Your task to perform on an android device: clear all cookies in the chrome app Image 0: 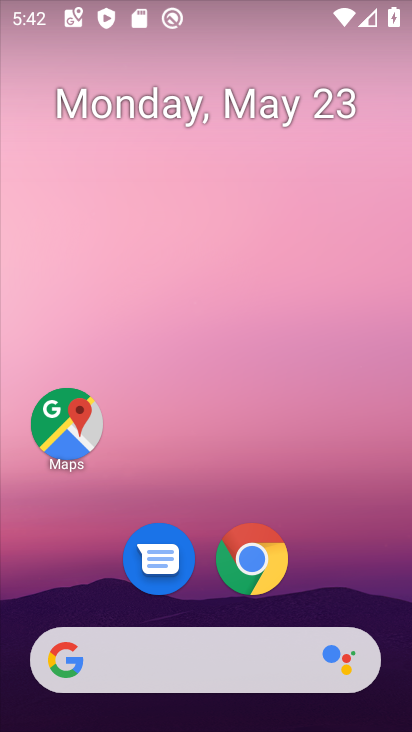
Step 0: drag from (287, 593) to (407, 458)
Your task to perform on an android device: clear all cookies in the chrome app Image 1: 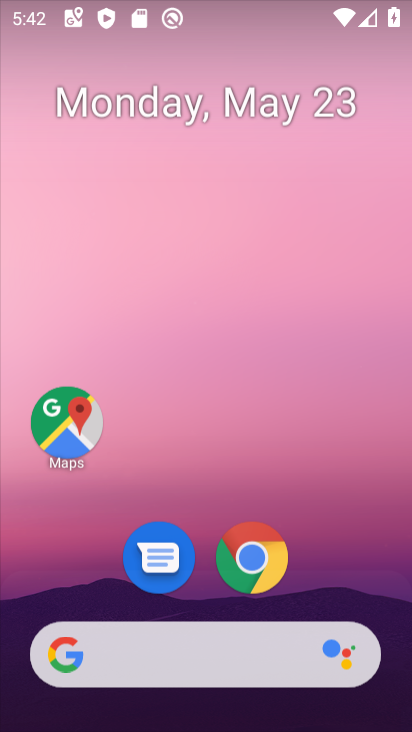
Step 1: click (260, 404)
Your task to perform on an android device: clear all cookies in the chrome app Image 2: 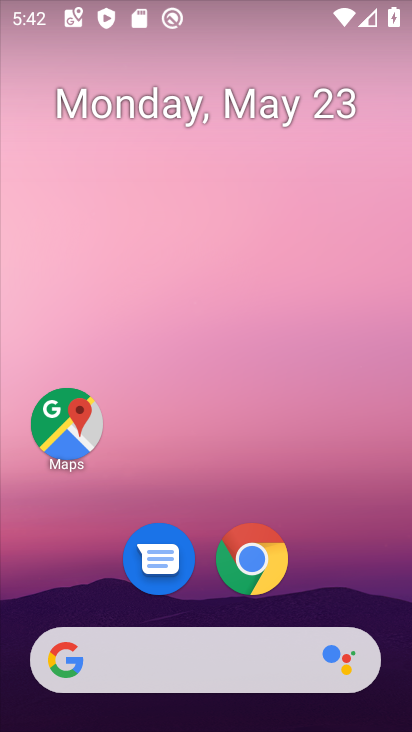
Step 2: drag from (278, 417) to (316, 0)
Your task to perform on an android device: clear all cookies in the chrome app Image 3: 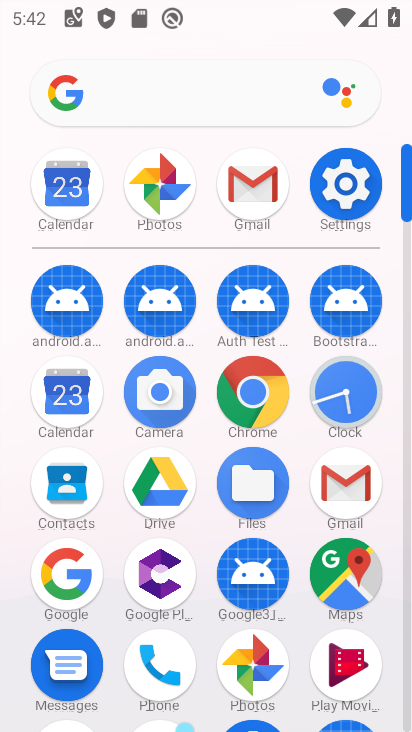
Step 3: click (246, 392)
Your task to perform on an android device: clear all cookies in the chrome app Image 4: 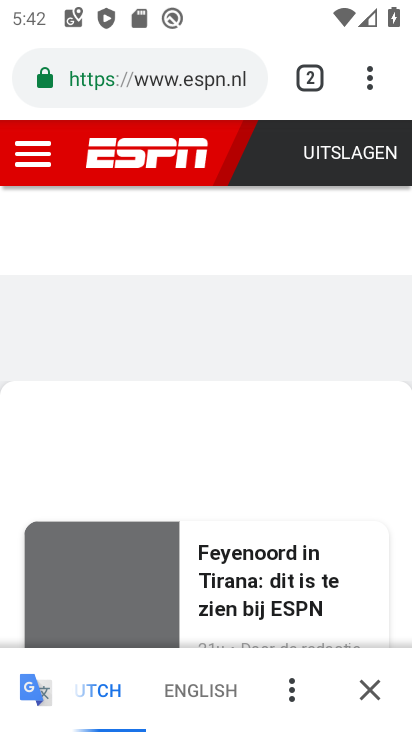
Step 4: click (372, 68)
Your task to perform on an android device: clear all cookies in the chrome app Image 5: 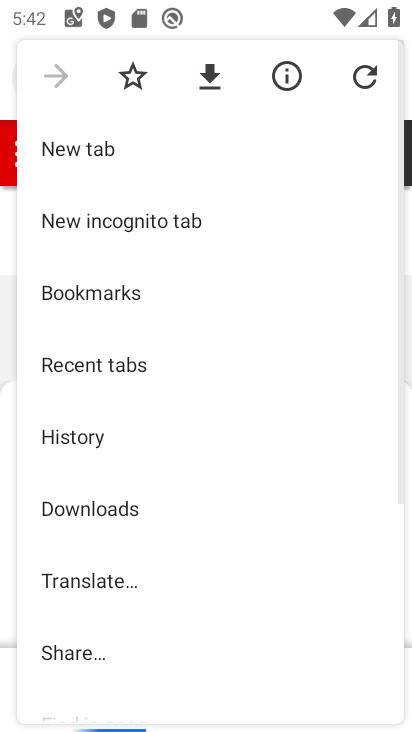
Step 5: drag from (195, 627) to (247, 76)
Your task to perform on an android device: clear all cookies in the chrome app Image 6: 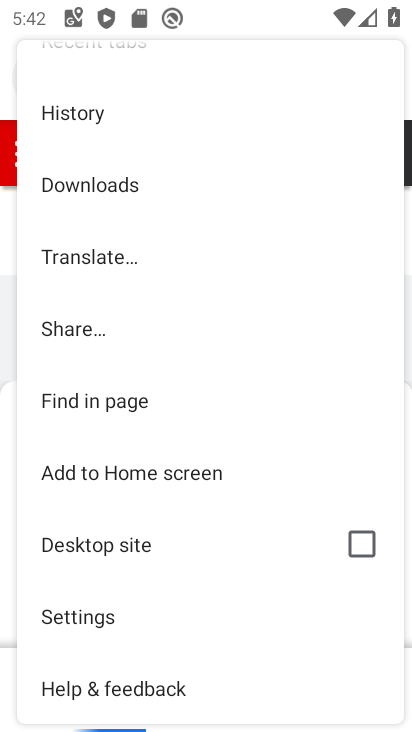
Step 6: click (103, 617)
Your task to perform on an android device: clear all cookies in the chrome app Image 7: 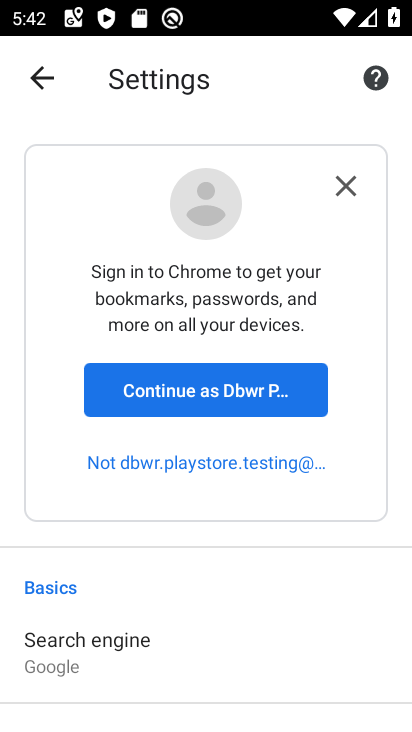
Step 7: drag from (221, 644) to (259, 88)
Your task to perform on an android device: clear all cookies in the chrome app Image 8: 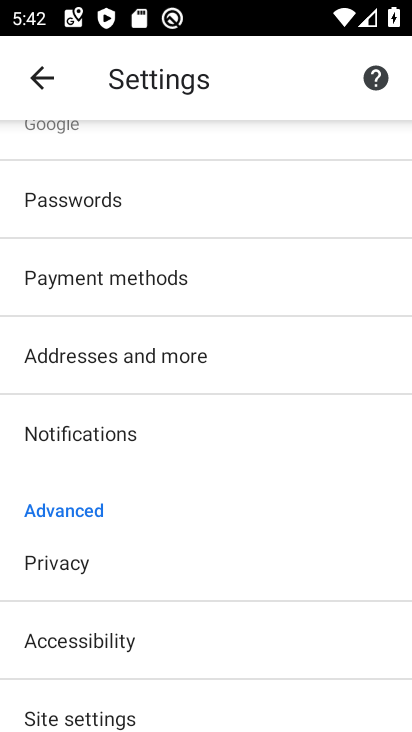
Step 8: drag from (208, 681) to (280, 197)
Your task to perform on an android device: clear all cookies in the chrome app Image 9: 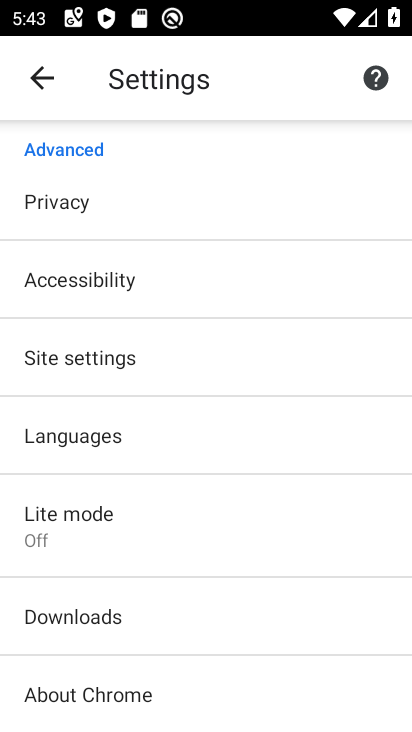
Step 9: click (149, 343)
Your task to perform on an android device: clear all cookies in the chrome app Image 10: 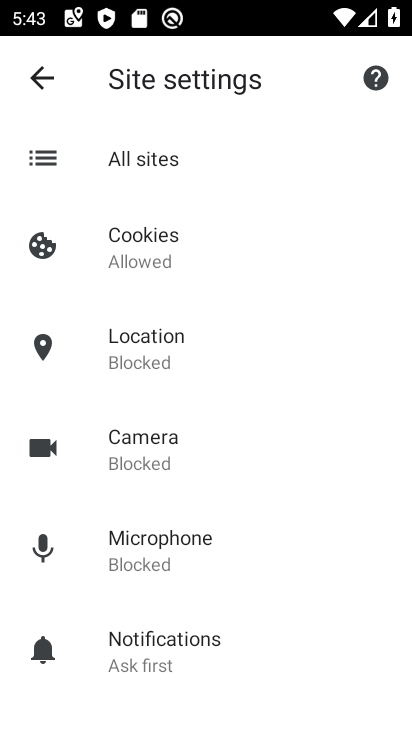
Step 10: press back button
Your task to perform on an android device: clear all cookies in the chrome app Image 11: 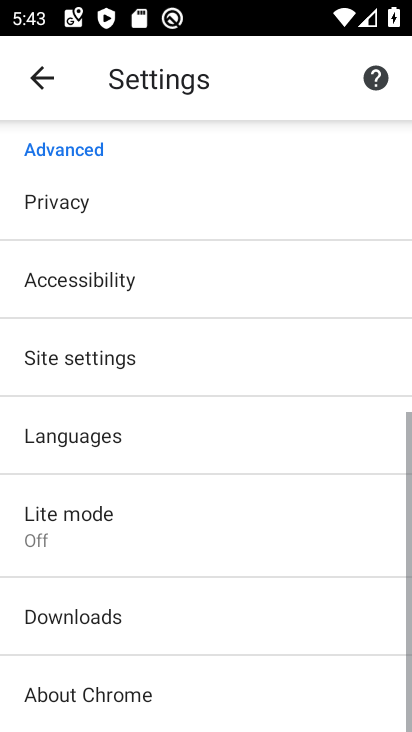
Step 11: click (99, 216)
Your task to perform on an android device: clear all cookies in the chrome app Image 12: 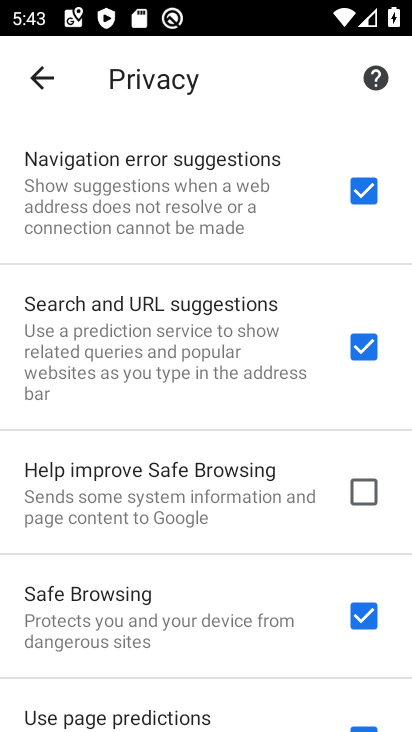
Step 12: drag from (65, 627) to (146, 27)
Your task to perform on an android device: clear all cookies in the chrome app Image 13: 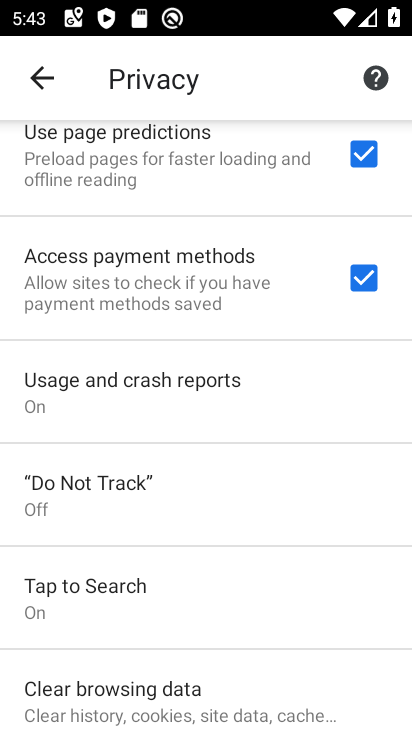
Step 13: click (139, 692)
Your task to perform on an android device: clear all cookies in the chrome app Image 14: 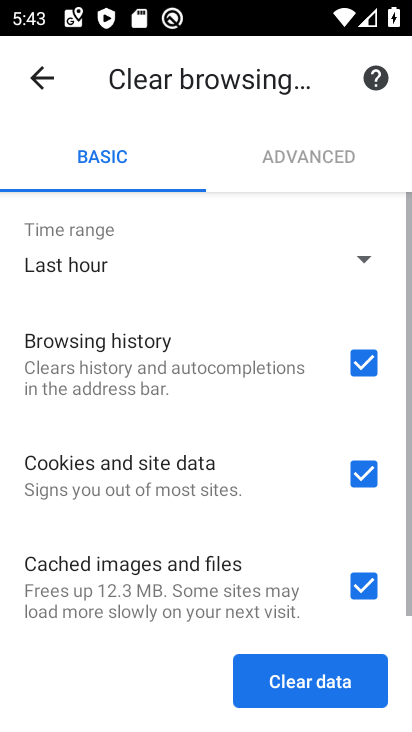
Step 14: click (335, 689)
Your task to perform on an android device: clear all cookies in the chrome app Image 15: 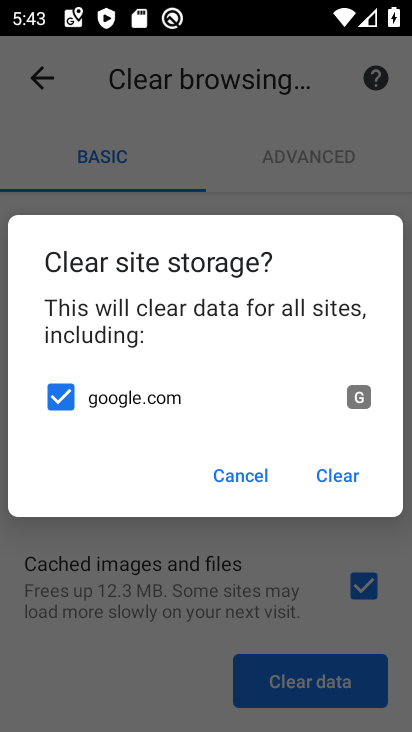
Step 15: click (347, 483)
Your task to perform on an android device: clear all cookies in the chrome app Image 16: 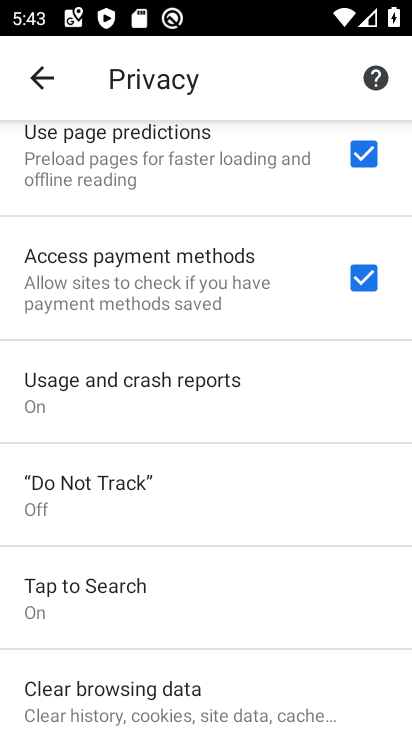
Step 16: task complete